Your task to perform on an android device: Open Chrome and go to settings Image 0: 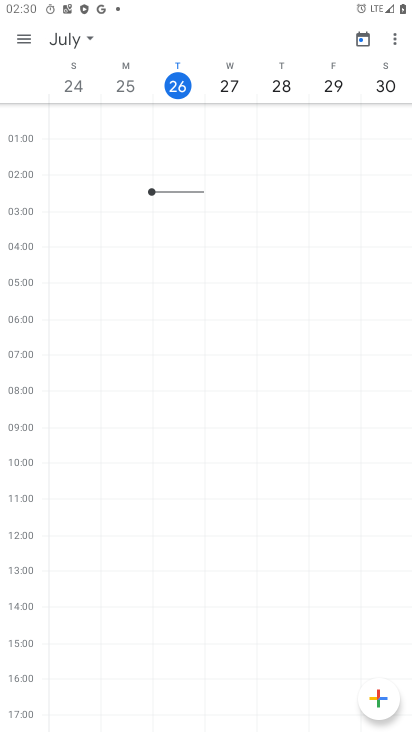
Step 0: press home button
Your task to perform on an android device: Open Chrome and go to settings Image 1: 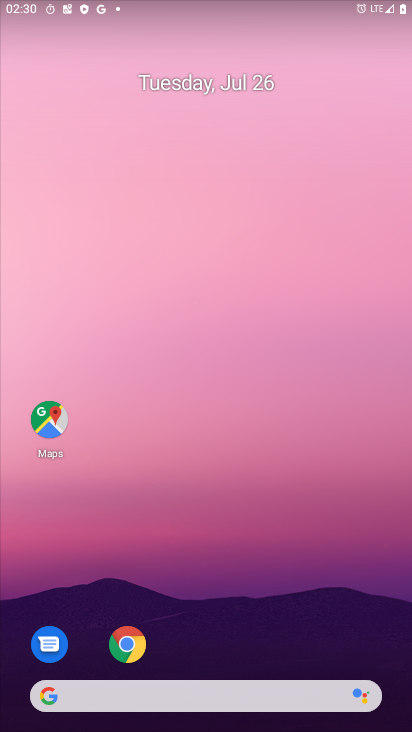
Step 1: click (131, 635)
Your task to perform on an android device: Open Chrome and go to settings Image 2: 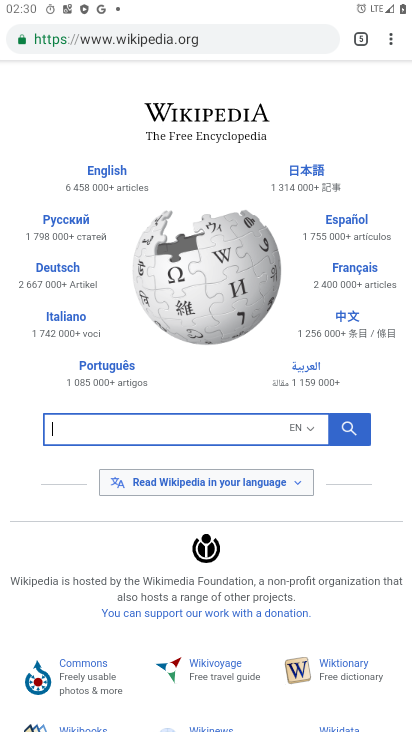
Step 2: click (396, 42)
Your task to perform on an android device: Open Chrome and go to settings Image 3: 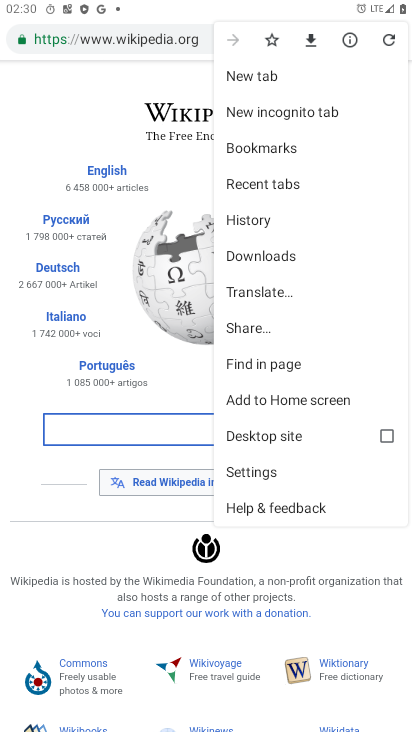
Step 3: click (263, 476)
Your task to perform on an android device: Open Chrome and go to settings Image 4: 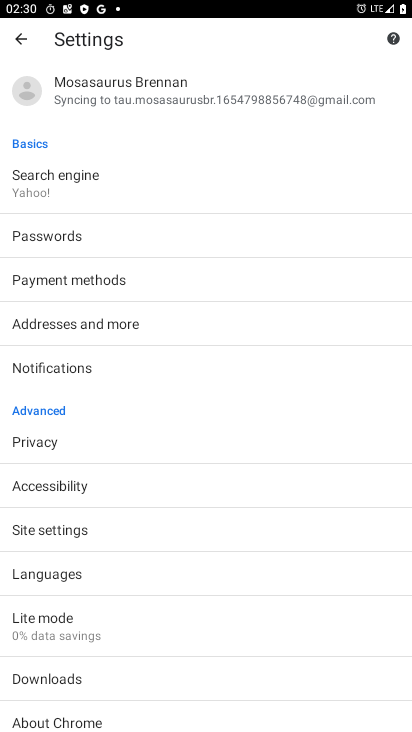
Step 4: task complete